Your task to perform on an android device: Open Google Maps and go to "Timeline" Image 0: 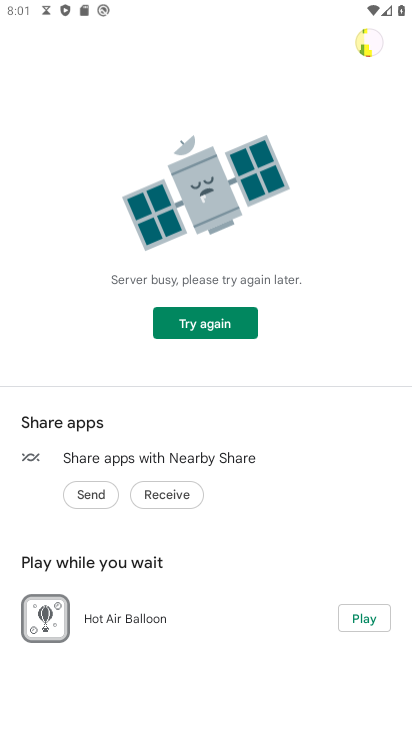
Step 0: press back button
Your task to perform on an android device: Open Google Maps and go to "Timeline" Image 1: 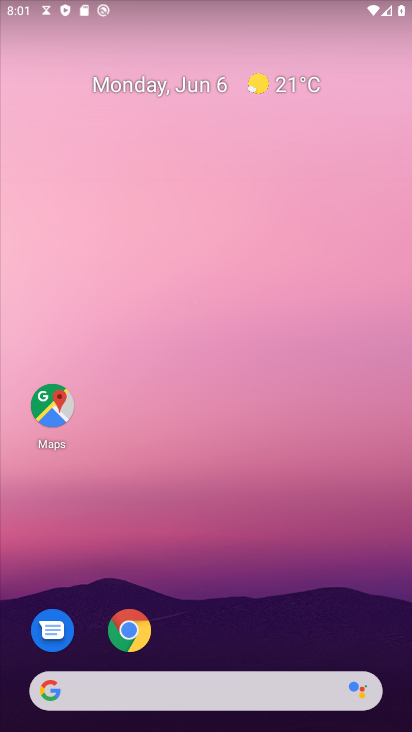
Step 1: click (51, 410)
Your task to perform on an android device: Open Google Maps and go to "Timeline" Image 2: 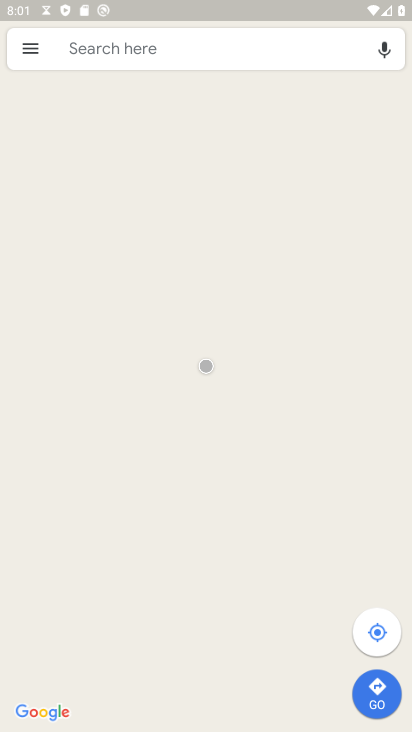
Step 2: click (33, 47)
Your task to perform on an android device: Open Google Maps and go to "Timeline" Image 3: 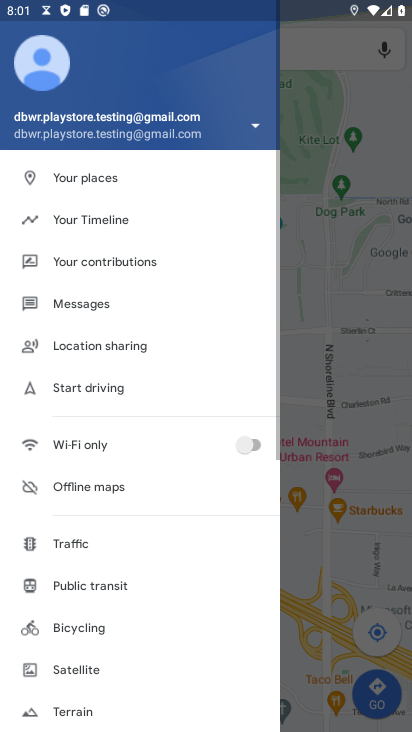
Step 3: click (102, 219)
Your task to perform on an android device: Open Google Maps and go to "Timeline" Image 4: 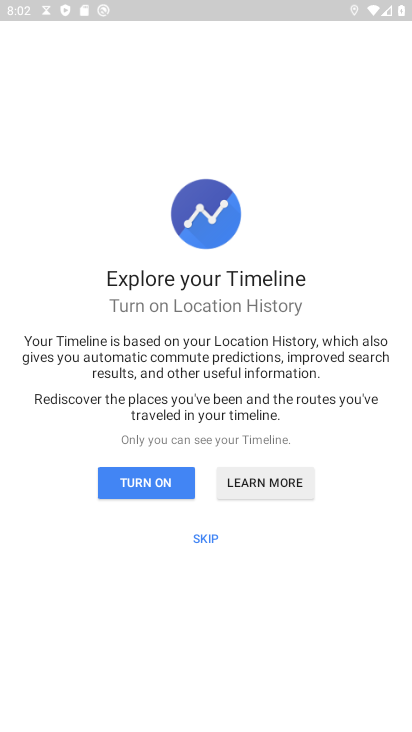
Step 4: click (205, 531)
Your task to perform on an android device: Open Google Maps and go to "Timeline" Image 5: 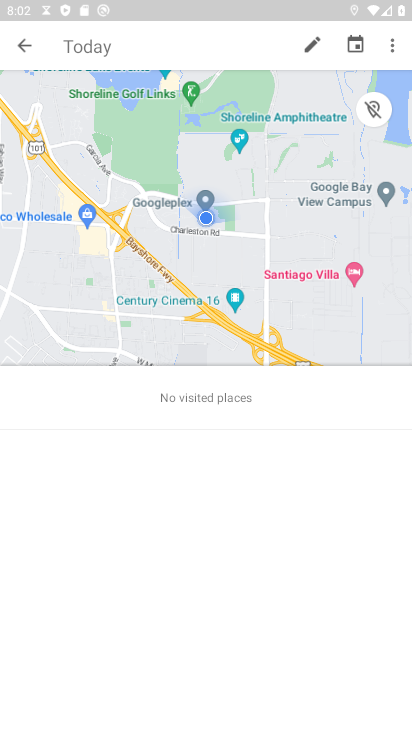
Step 5: task complete